Your task to perform on an android device: Show me the alarms in the clock app Image 0: 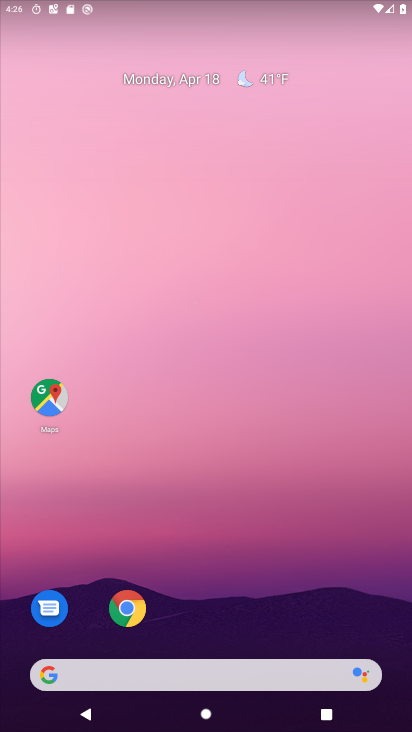
Step 0: drag from (200, 478) to (267, 47)
Your task to perform on an android device: Show me the alarms in the clock app Image 1: 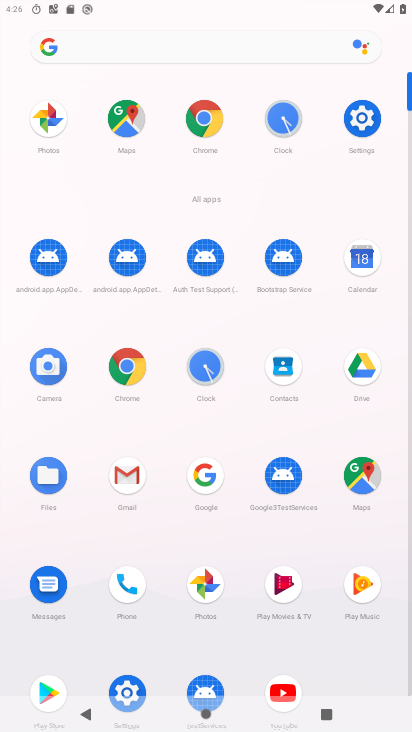
Step 1: click (284, 125)
Your task to perform on an android device: Show me the alarms in the clock app Image 2: 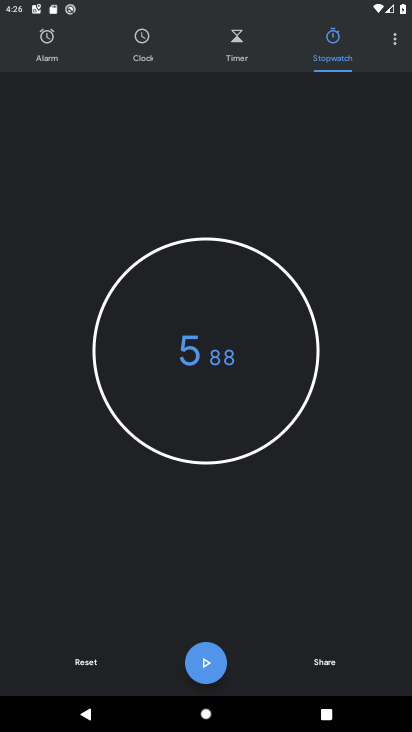
Step 2: click (43, 46)
Your task to perform on an android device: Show me the alarms in the clock app Image 3: 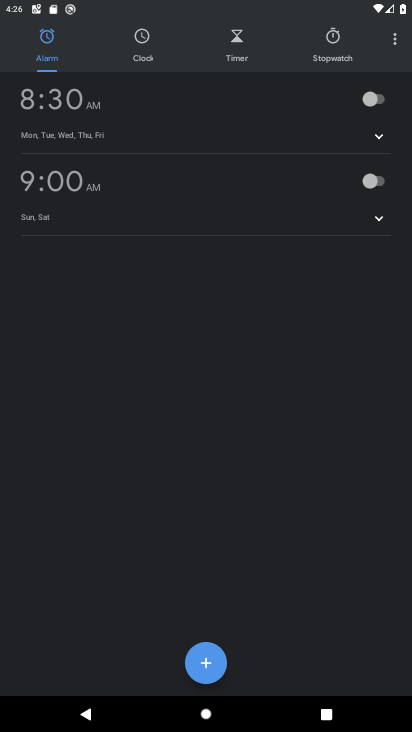
Step 3: task complete